Your task to perform on an android device: delete browsing data in the chrome app Image 0: 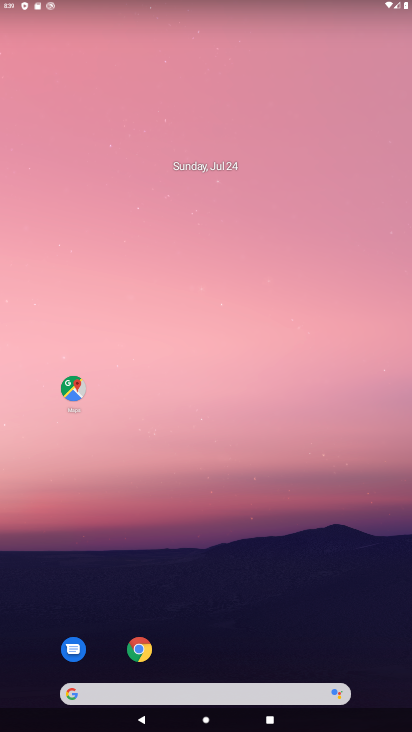
Step 0: click (139, 650)
Your task to perform on an android device: delete browsing data in the chrome app Image 1: 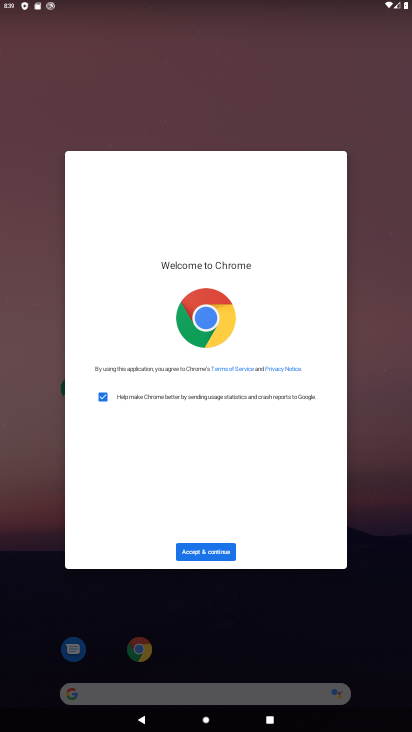
Step 1: click (193, 553)
Your task to perform on an android device: delete browsing data in the chrome app Image 2: 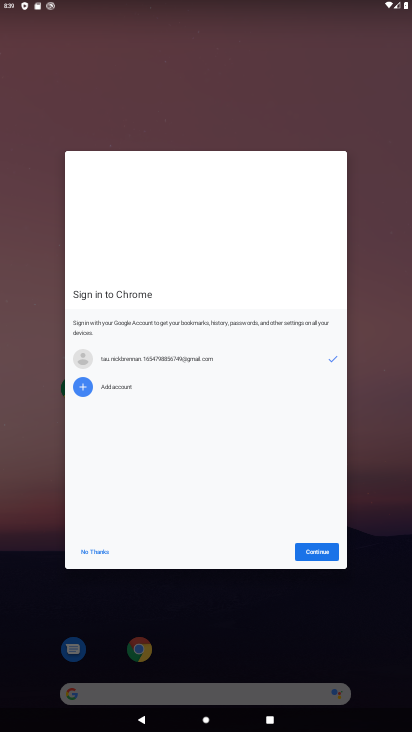
Step 2: click (329, 553)
Your task to perform on an android device: delete browsing data in the chrome app Image 3: 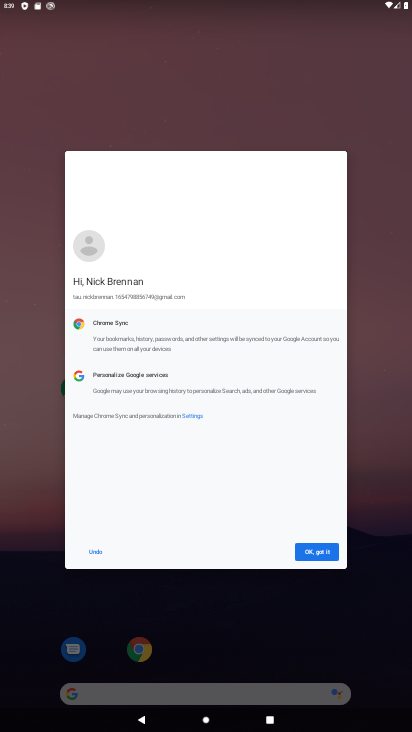
Step 3: click (318, 555)
Your task to perform on an android device: delete browsing data in the chrome app Image 4: 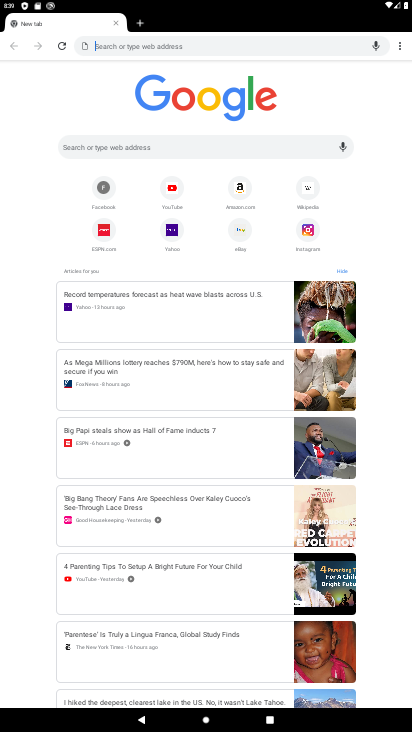
Step 4: click (401, 45)
Your task to perform on an android device: delete browsing data in the chrome app Image 5: 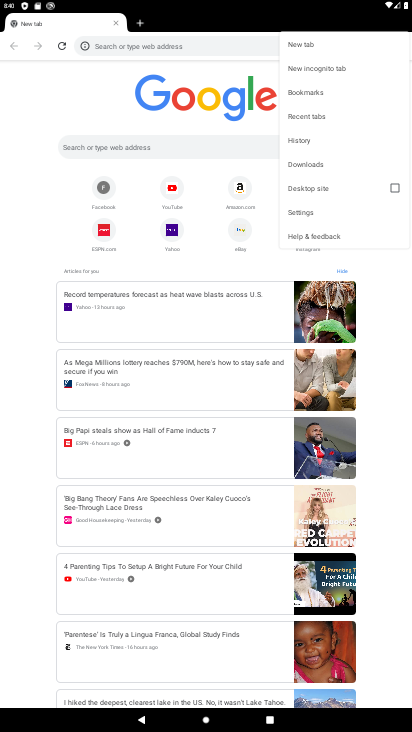
Step 5: click (300, 144)
Your task to perform on an android device: delete browsing data in the chrome app Image 6: 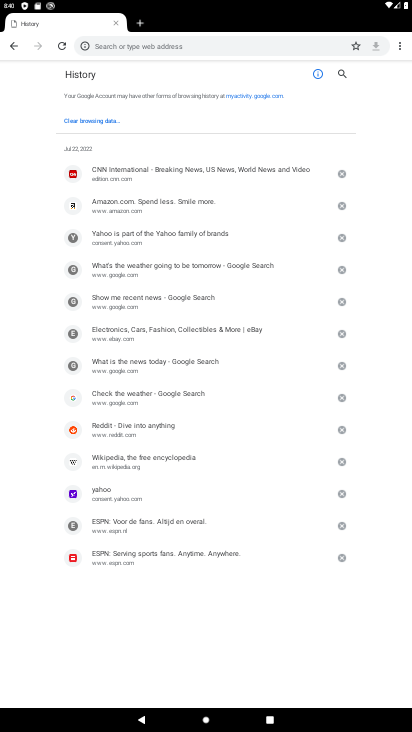
Step 6: click (97, 117)
Your task to perform on an android device: delete browsing data in the chrome app Image 7: 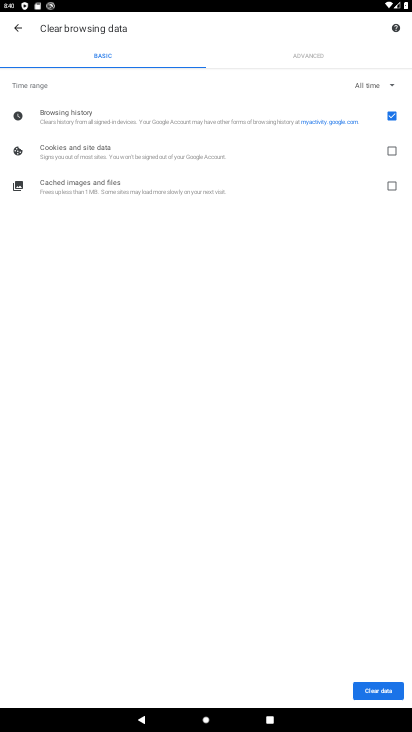
Step 7: click (374, 691)
Your task to perform on an android device: delete browsing data in the chrome app Image 8: 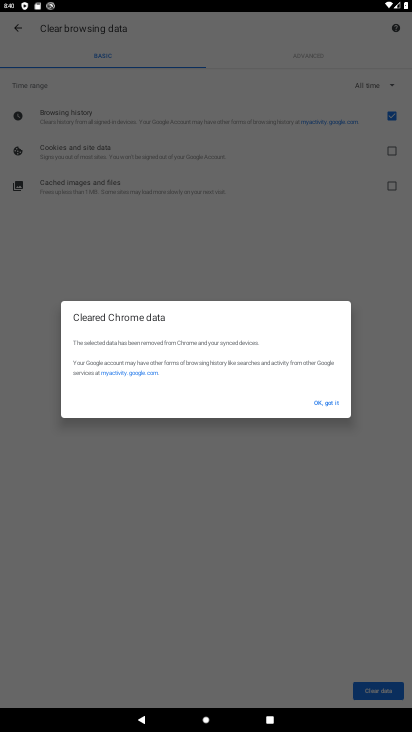
Step 8: click (330, 407)
Your task to perform on an android device: delete browsing data in the chrome app Image 9: 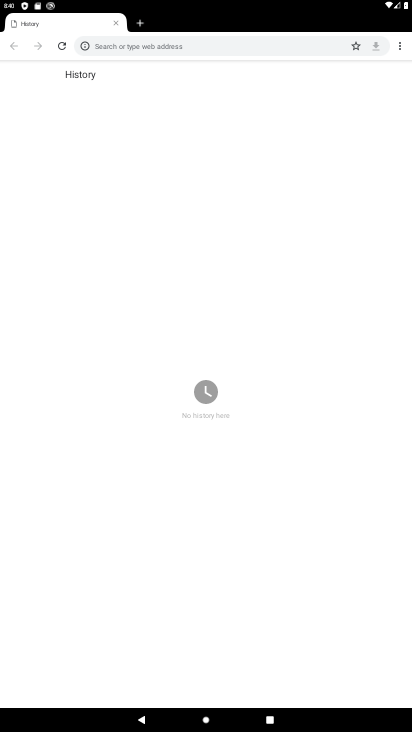
Step 9: task complete